Your task to perform on an android device: Go to eBay Image 0: 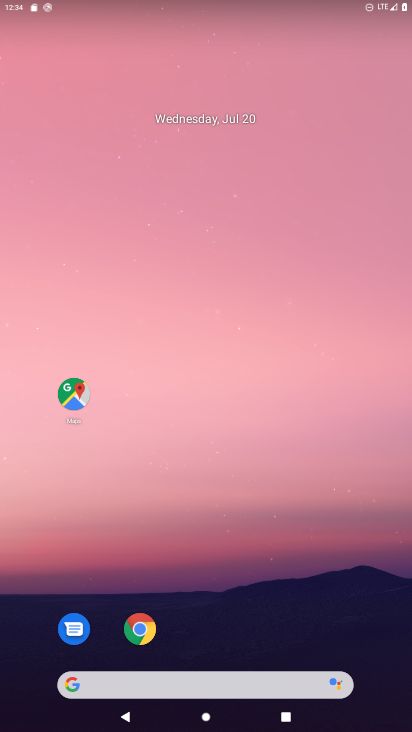
Step 0: click (144, 625)
Your task to perform on an android device: Go to eBay Image 1: 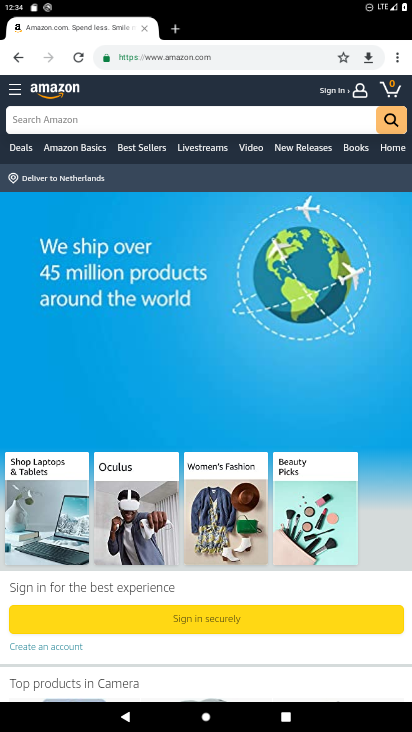
Step 1: click (177, 32)
Your task to perform on an android device: Go to eBay Image 2: 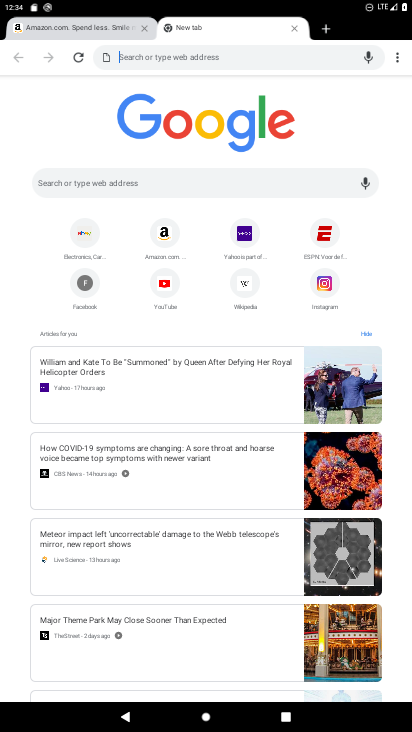
Step 2: click (78, 246)
Your task to perform on an android device: Go to eBay Image 3: 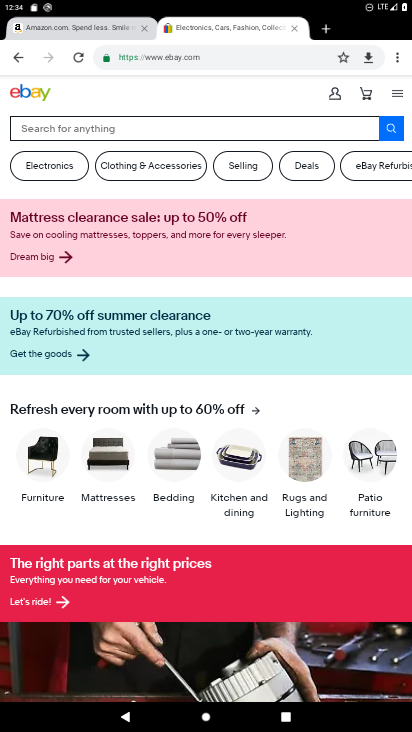
Step 3: task complete